Your task to perform on an android device: See recent photos Image 0: 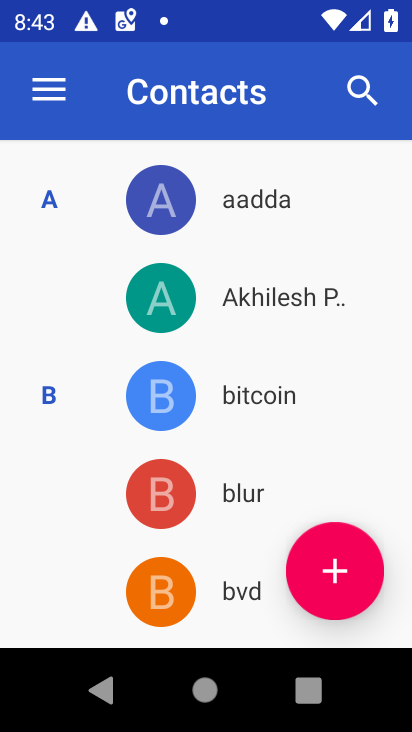
Step 0: press home button
Your task to perform on an android device: See recent photos Image 1: 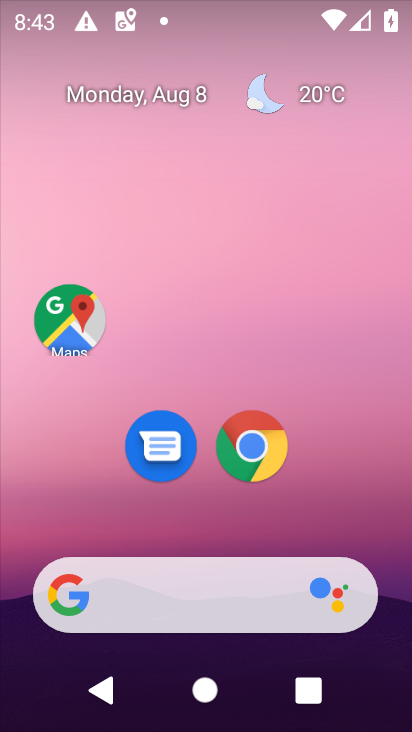
Step 1: drag from (404, 589) to (274, 77)
Your task to perform on an android device: See recent photos Image 2: 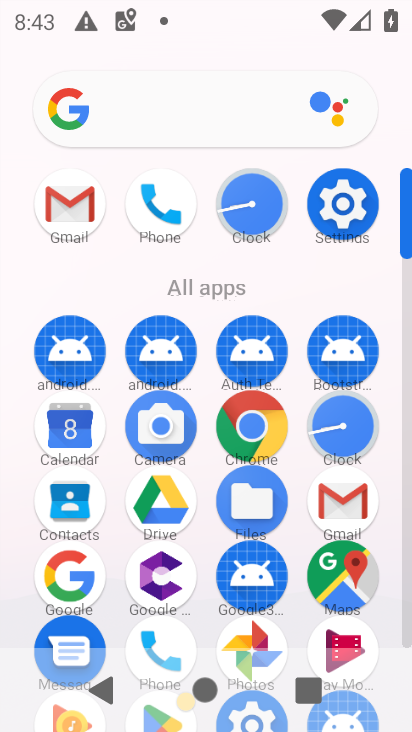
Step 2: click (407, 635)
Your task to perform on an android device: See recent photos Image 3: 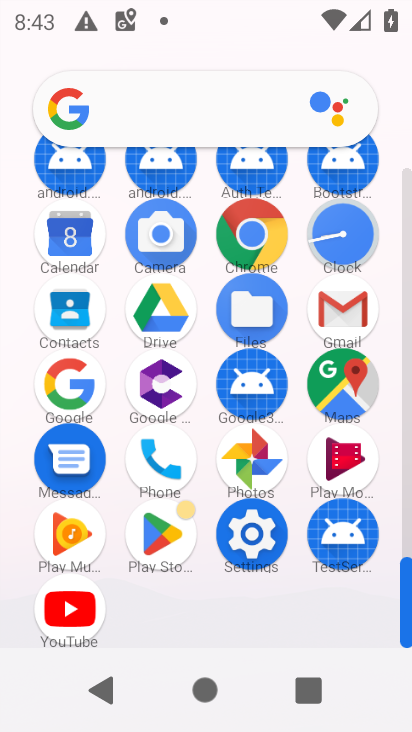
Step 3: click (247, 465)
Your task to perform on an android device: See recent photos Image 4: 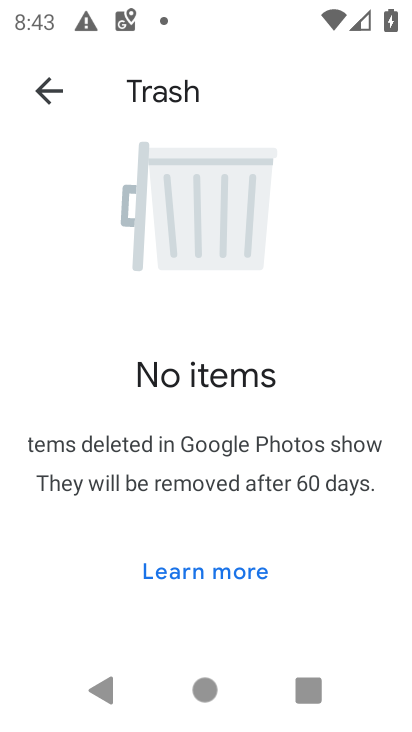
Step 4: task complete